Your task to perform on an android device: Open calendar and show me the first week of next month Image 0: 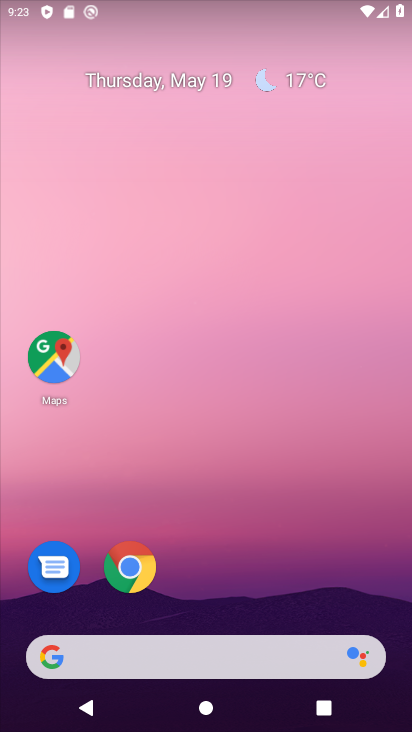
Step 0: drag from (321, 600) to (380, 2)
Your task to perform on an android device: Open calendar and show me the first week of next month Image 1: 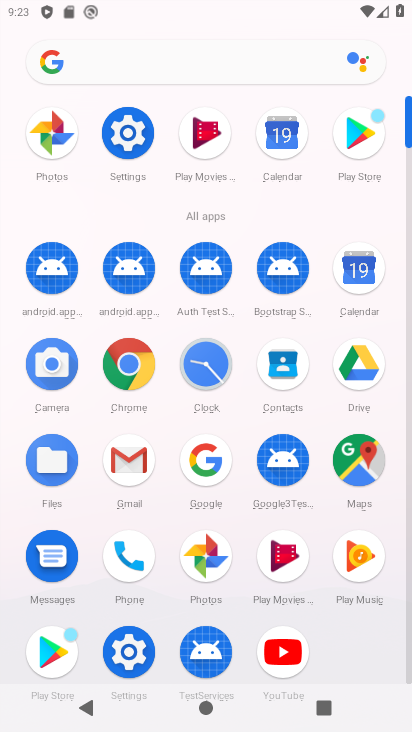
Step 1: click (364, 285)
Your task to perform on an android device: Open calendar and show me the first week of next month Image 2: 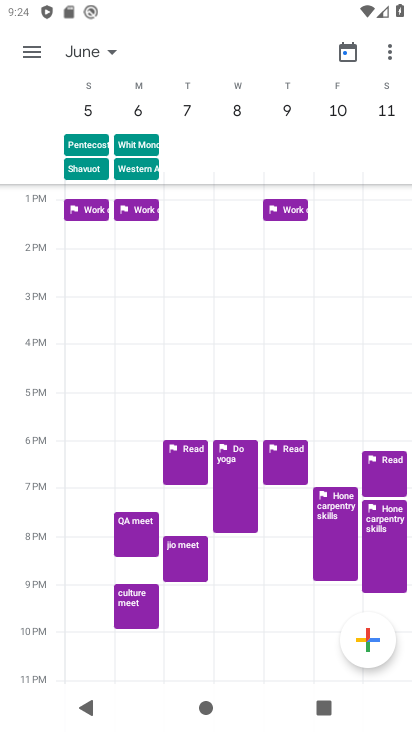
Step 2: click (104, 41)
Your task to perform on an android device: Open calendar and show me the first week of next month Image 3: 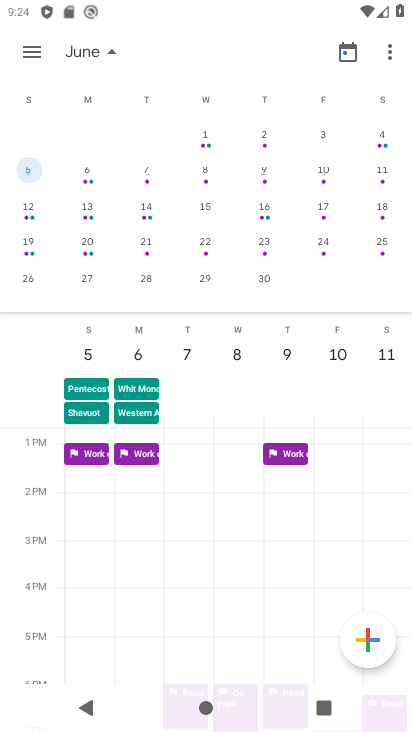
Step 3: task complete